Your task to perform on an android device: open chrome and create a bookmark for the current page Image 0: 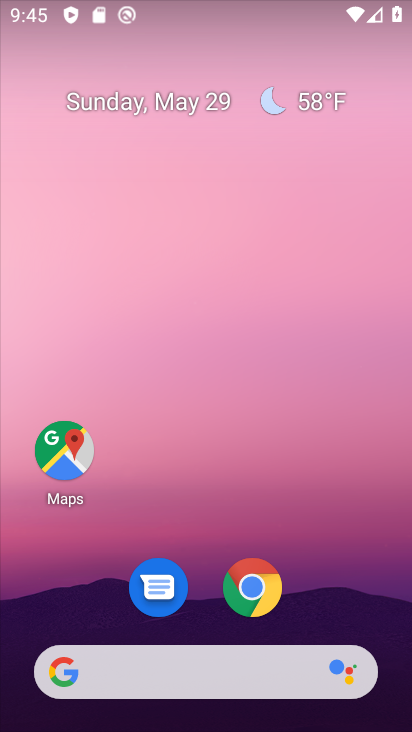
Step 0: click (267, 572)
Your task to perform on an android device: open chrome and create a bookmark for the current page Image 1: 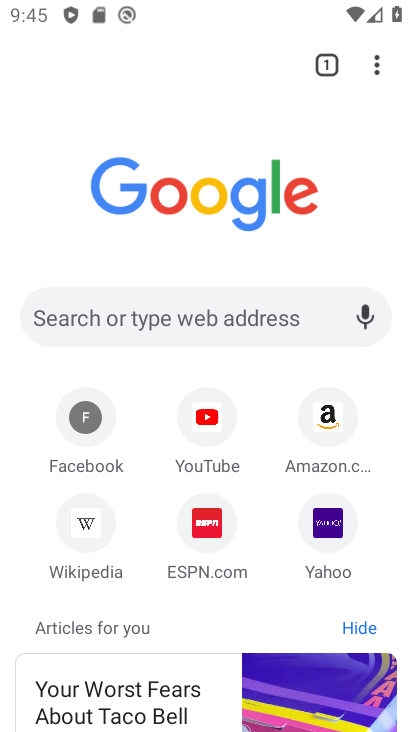
Step 1: click (367, 69)
Your task to perform on an android device: open chrome and create a bookmark for the current page Image 2: 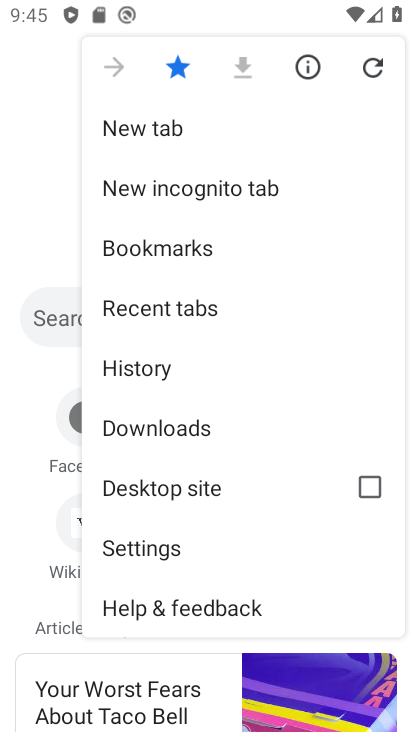
Step 2: task complete